Your task to perform on an android device: open sync settings in chrome Image 0: 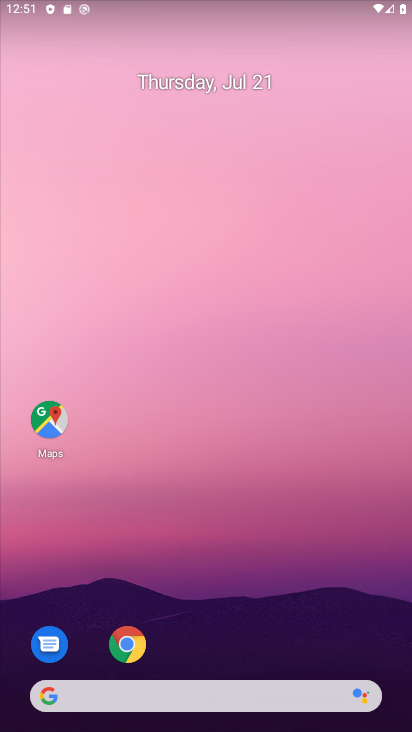
Step 0: drag from (222, 486) to (124, 34)
Your task to perform on an android device: open sync settings in chrome Image 1: 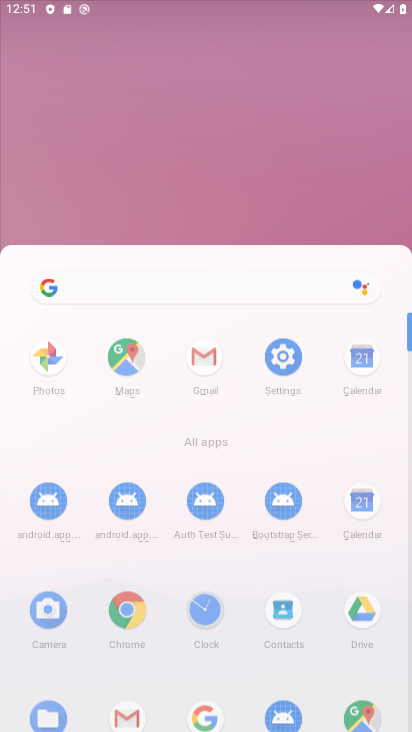
Step 1: drag from (144, 271) to (118, 70)
Your task to perform on an android device: open sync settings in chrome Image 2: 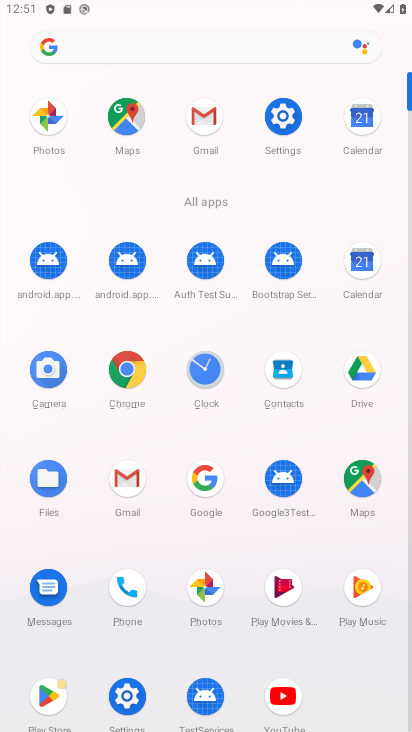
Step 2: click (130, 372)
Your task to perform on an android device: open sync settings in chrome Image 3: 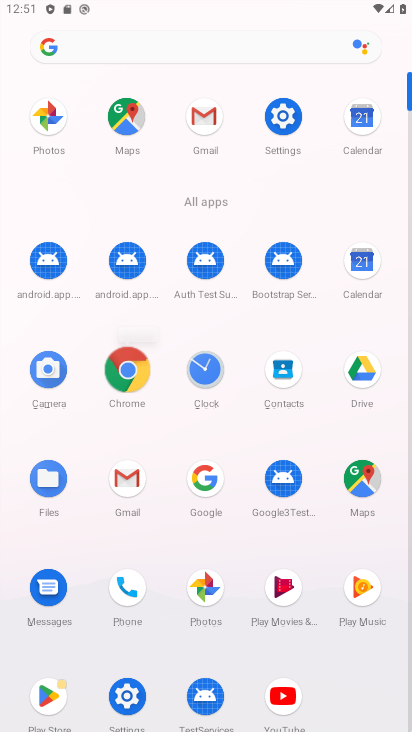
Step 3: click (130, 367)
Your task to perform on an android device: open sync settings in chrome Image 4: 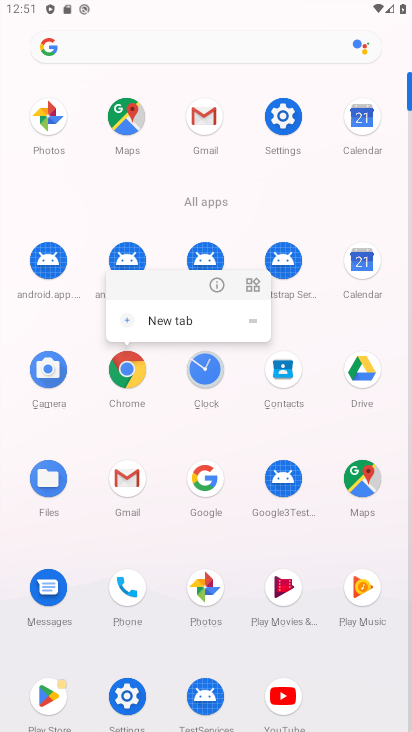
Step 4: click (136, 378)
Your task to perform on an android device: open sync settings in chrome Image 5: 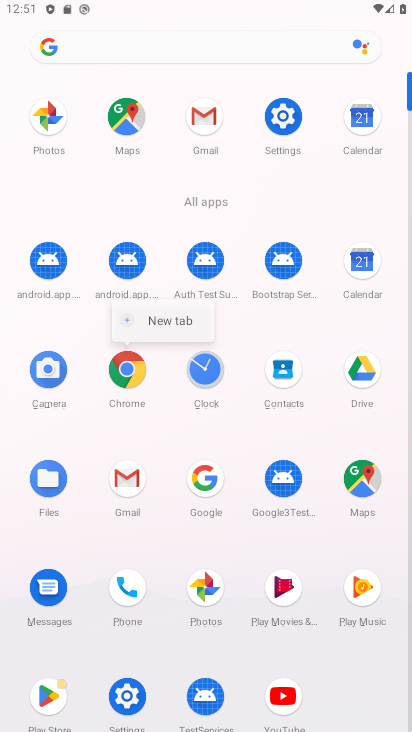
Step 5: click (136, 376)
Your task to perform on an android device: open sync settings in chrome Image 6: 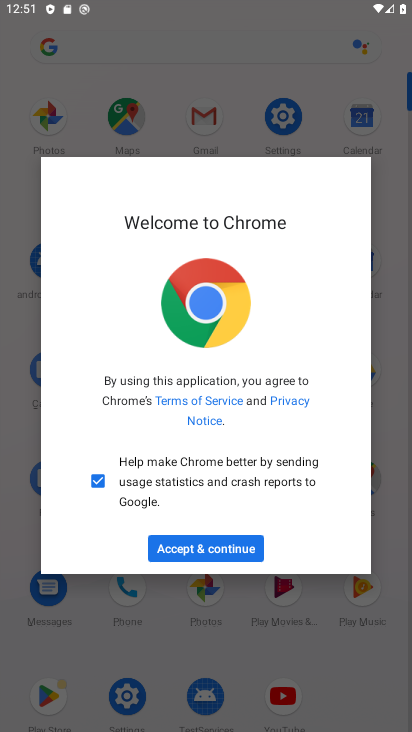
Step 6: drag from (203, 615) to (126, 219)
Your task to perform on an android device: open sync settings in chrome Image 7: 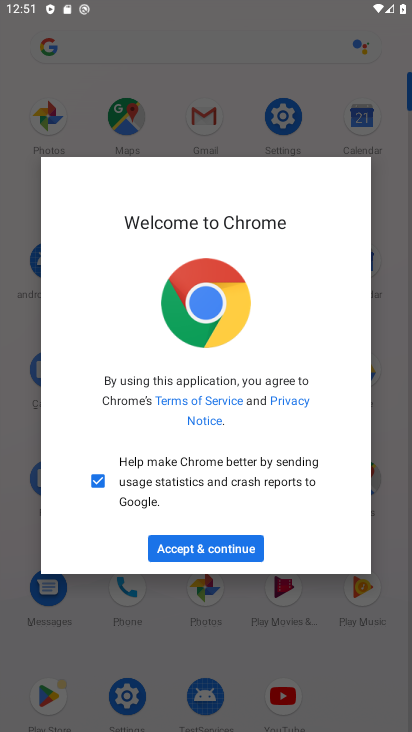
Step 7: click (234, 545)
Your task to perform on an android device: open sync settings in chrome Image 8: 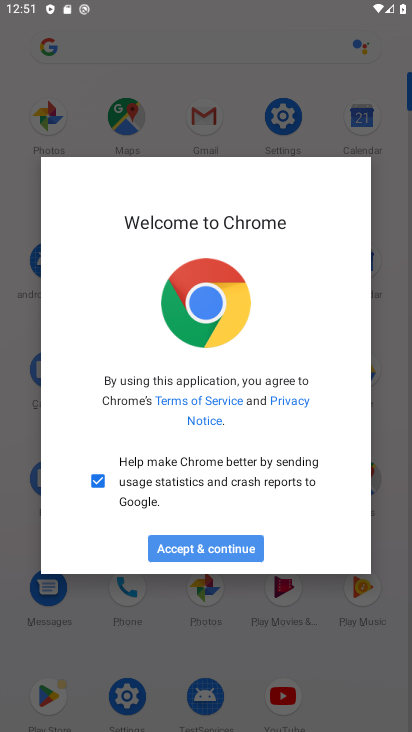
Step 8: click (236, 545)
Your task to perform on an android device: open sync settings in chrome Image 9: 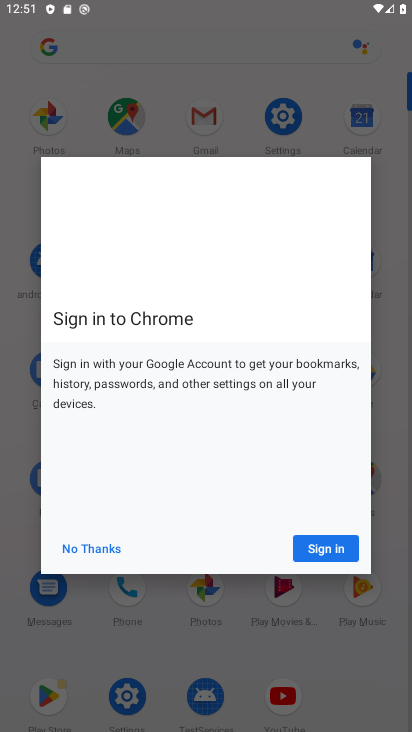
Step 9: click (90, 552)
Your task to perform on an android device: open sync settings in chrome Image 10: 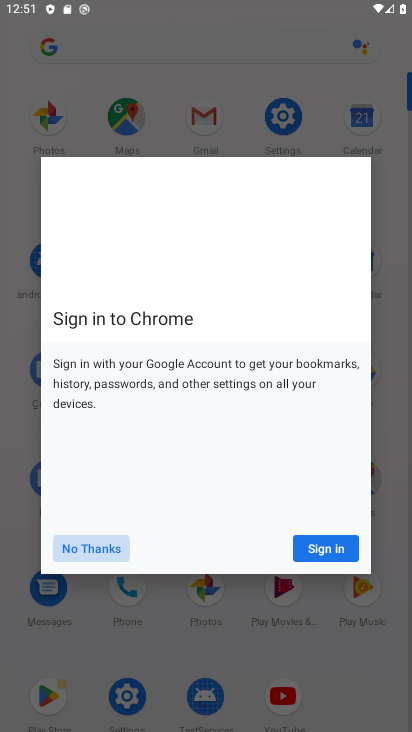
Step 10: click (90, 546)
Your task to perform on an android device: open sync settings in chrome Image 11: 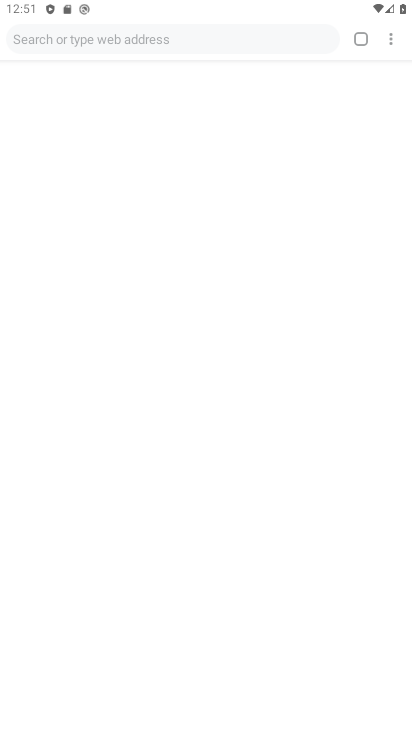
Step 11: click (90, 548)
Your task to perform on an android device: open sync settings in chrome Image 12: 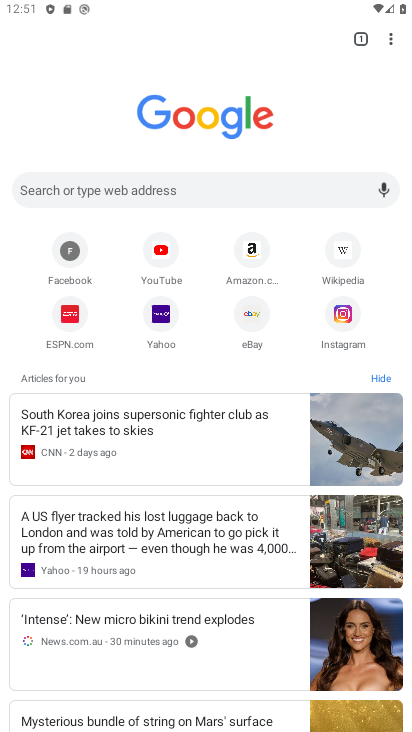
Step 12: drag from (387, 35) to (231, 321)
Your task to perform on an android device: open sync settings in chrome Image 13: 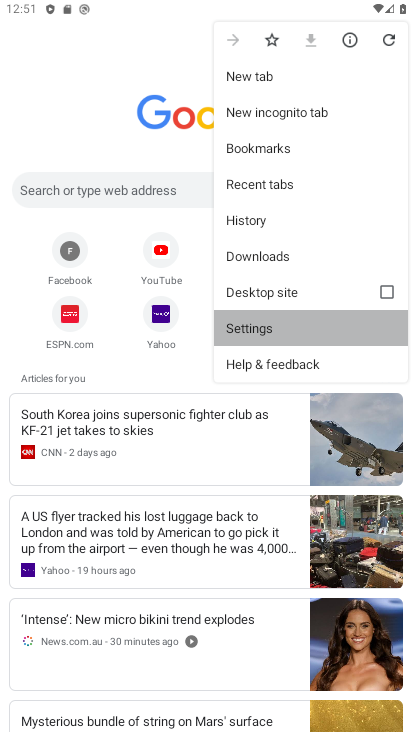
Step 13: click (241, 317)
Your task to perform on an android device: open sync settings in chrome Image 14: 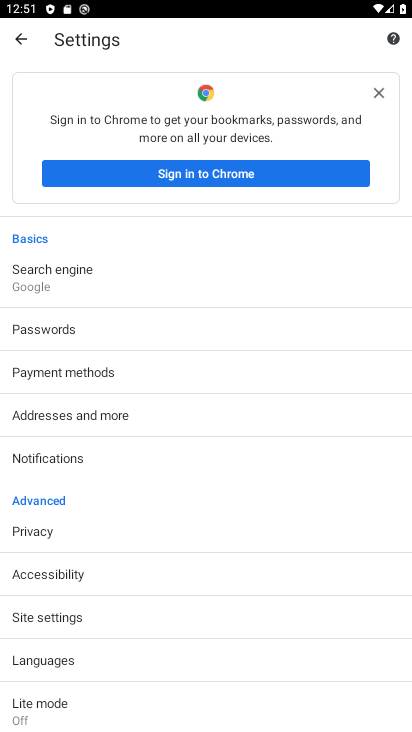
Step 14: drag from (58, 547) to (57, 332)
Your task to perform on an android device: open sync settings in chrome Image 15: 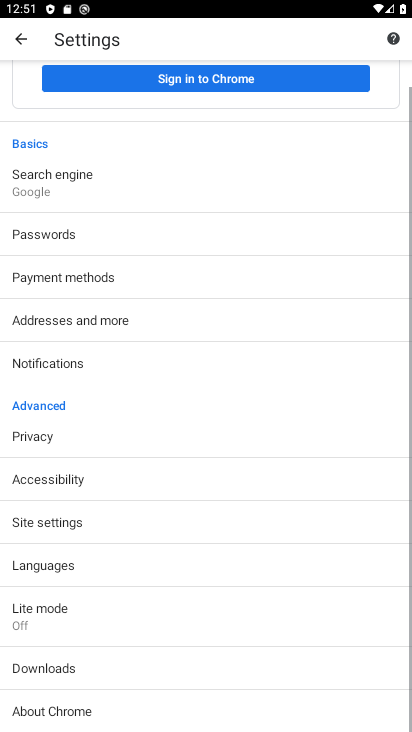
Step 15: drag from (60, 521) to (74, 386)
Your task to perform on an android device: open sync settings in chrome Image 16: 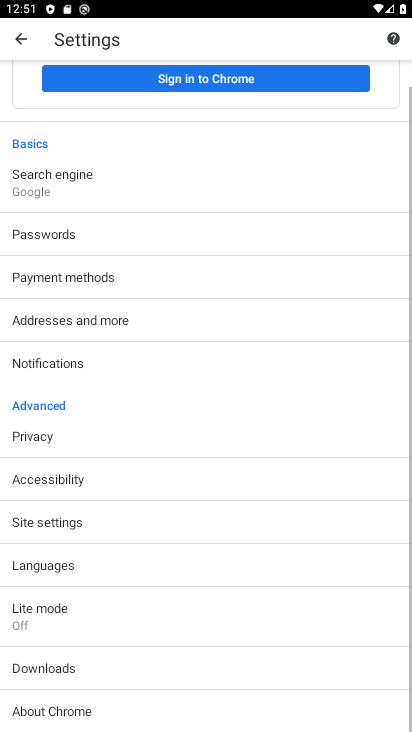
Step 16: click (39, 514)
Your task to perform on an android device: open sync settings in chrome Image 17: 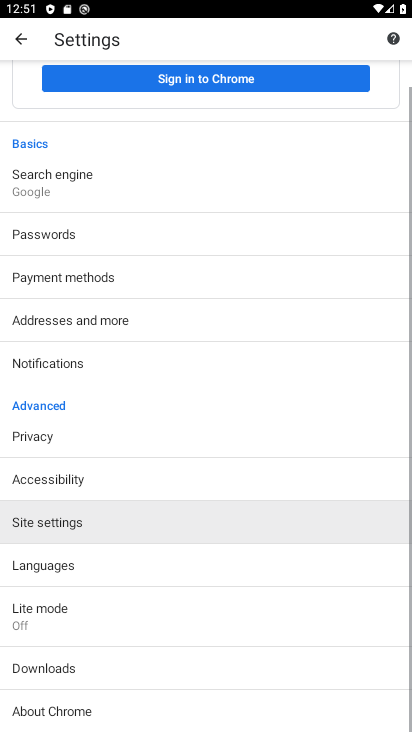
Step 17: click (39, 515)
Your task to perform on an android device: open sync settings in chrome Image 18: 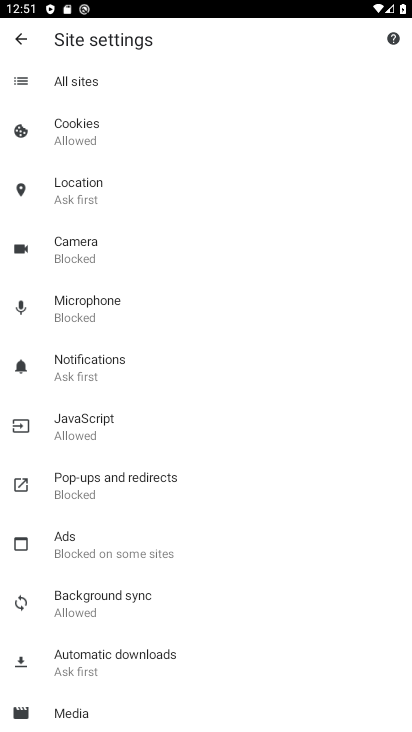
Step 18: click (82, 598)
Your task to perform on an android device: open sync settings in chrome Image 19: 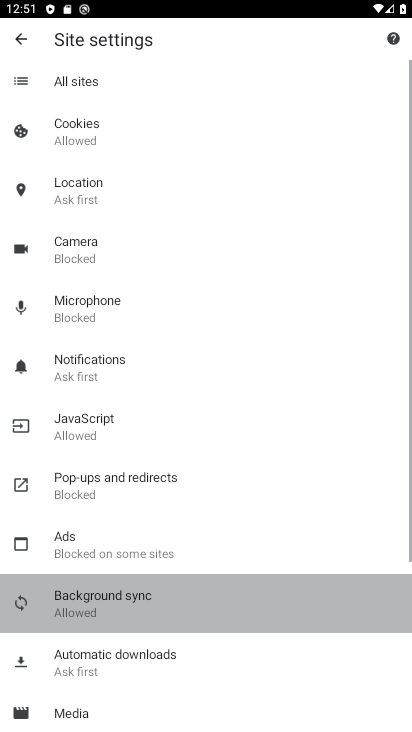
Step 19: click (82, 598)
Your task to perform on an android device: open sync settings in chrome Image 20: 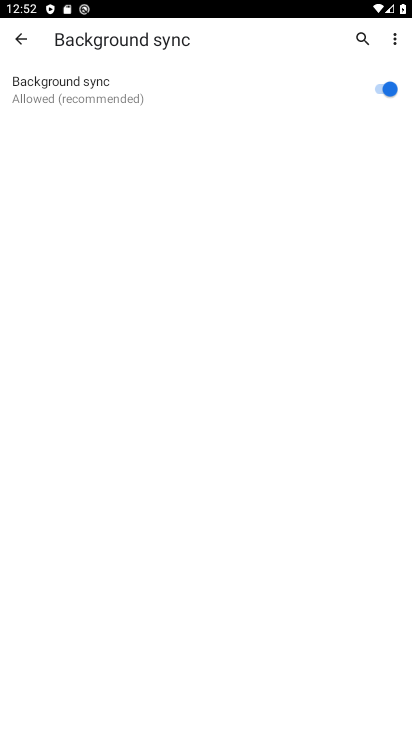
Step 20: task complete